Your task to perform on an android device: turn off javascript in the chrome app Image 0: 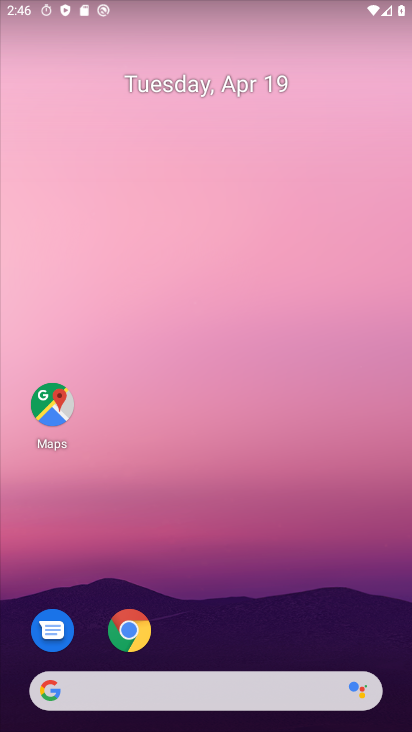
Step 0: drag from (265, 637) to (301, 119)
Your task to perform on an android device: turn off javascript in the chrome app Image 1: 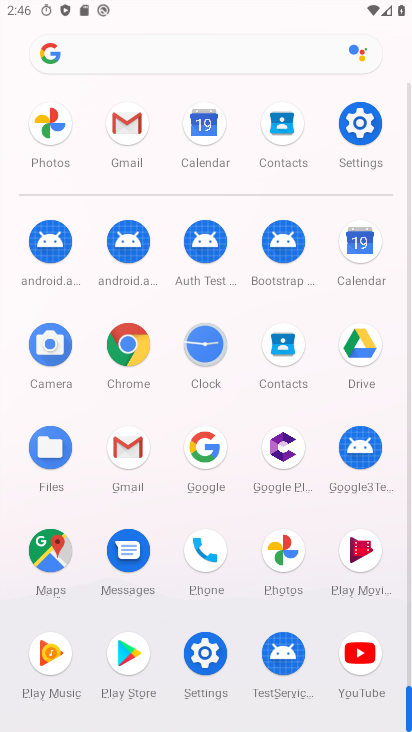
Step 1: click (361, 121)
Your task to perform on an android device: turn off javascript in the chrome app Image 2: 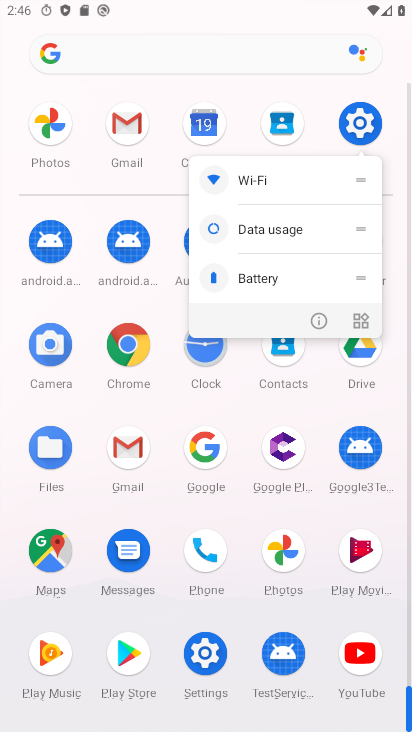
Step 2: click (128, 336)
Your task to perform on an android device: turn off javascript in the chrome app Image 3: 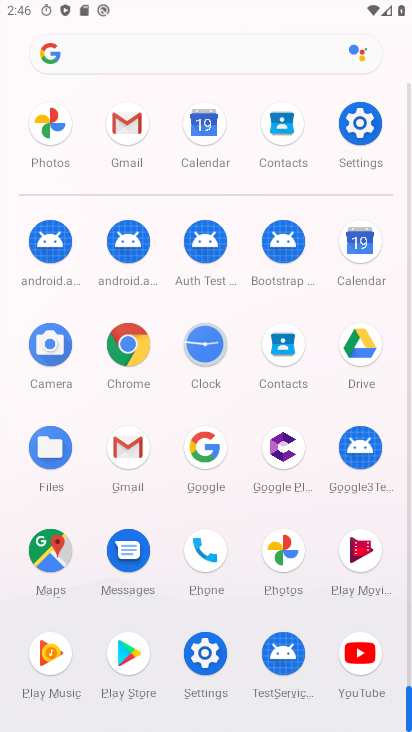
Step 3: click (132, 344)
Your task to perform on an android device: turn off javascript in the chrome app Image 4: 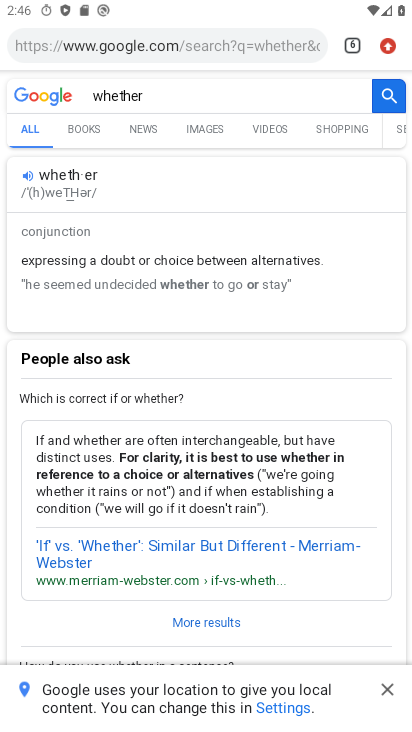
Step 4: click (385, 43)
Your task to perform on an android device: turn off javascript in the chrome app Image 5: 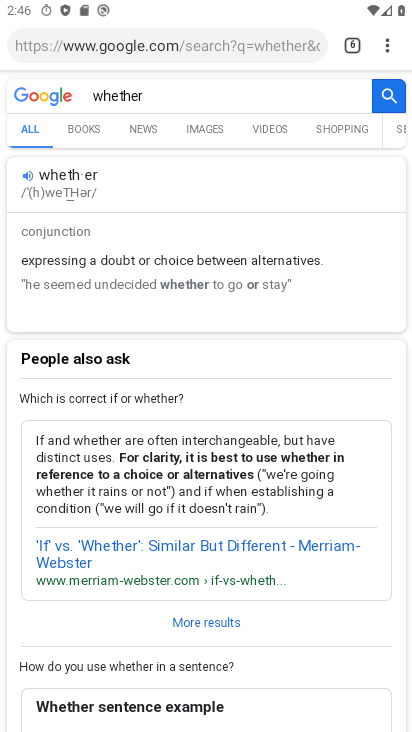
Step 5: click (385, 46)
Your task to perform on an android device: turn off javascript in the chrome app Image 6: 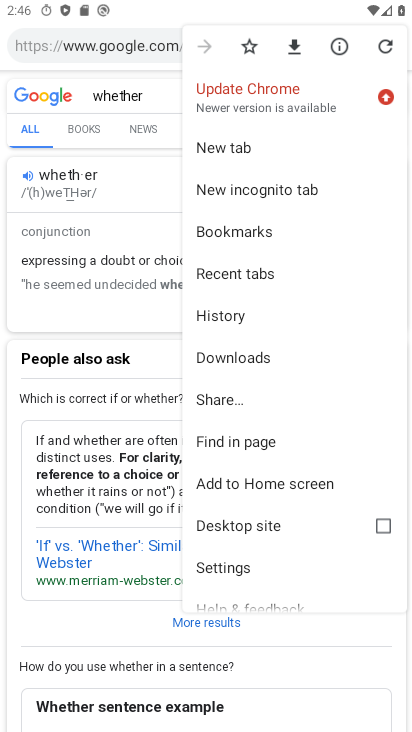
Step 6: click (238, 564)
Your task to perform on an android device: turn off javascript in the chrome app Image 7: 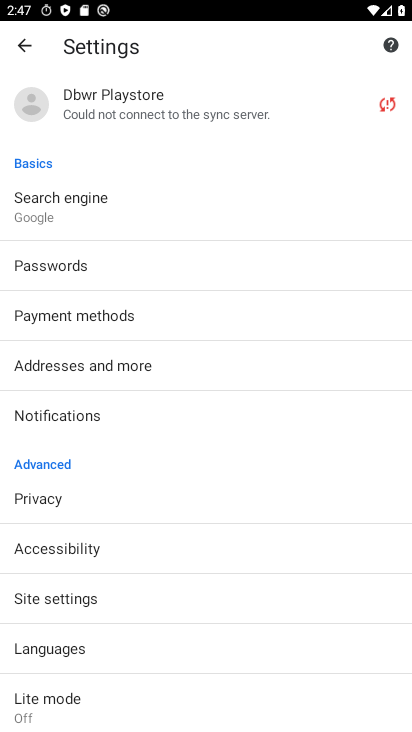
Step 7: click (100, 599)
Your task to perform on an android device: turn off javascript in the chrome app Image 8: 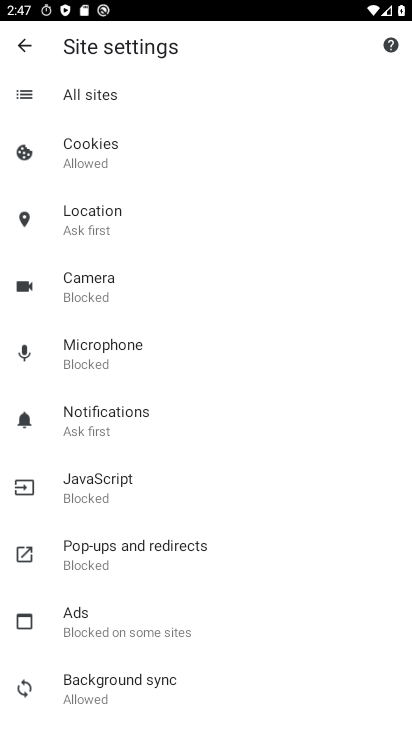
Step 8: click (120, 492)
Your task to perform on an android device: turn off javascript in the chrome app Image 9: 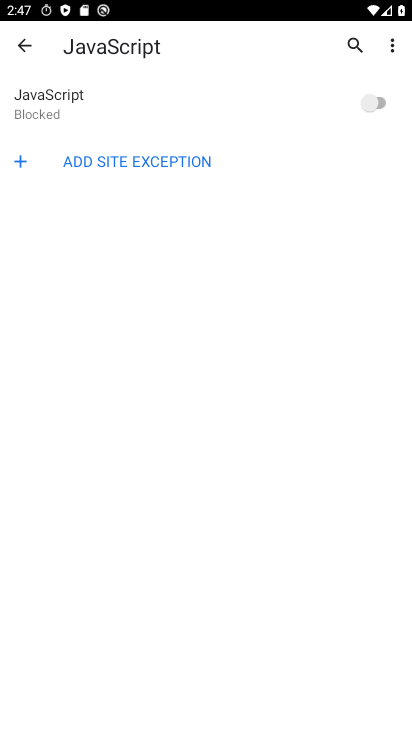
Step 9: task complete